Your task to perform on an android device: Go to notification settings Image 0: 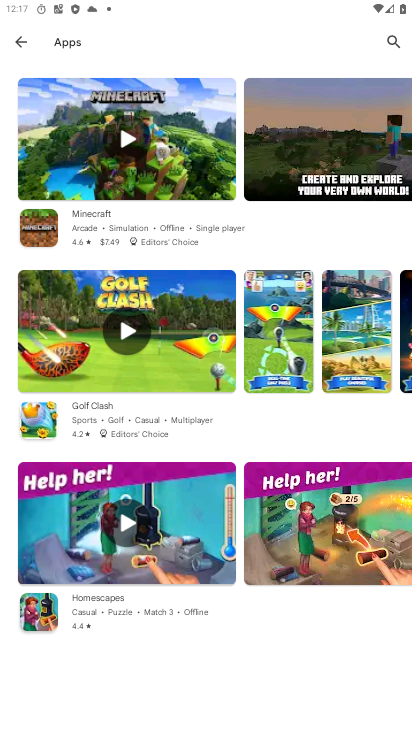
Step 0: press home button
Your task to perform on an android device: Go to notification settings Image 1: 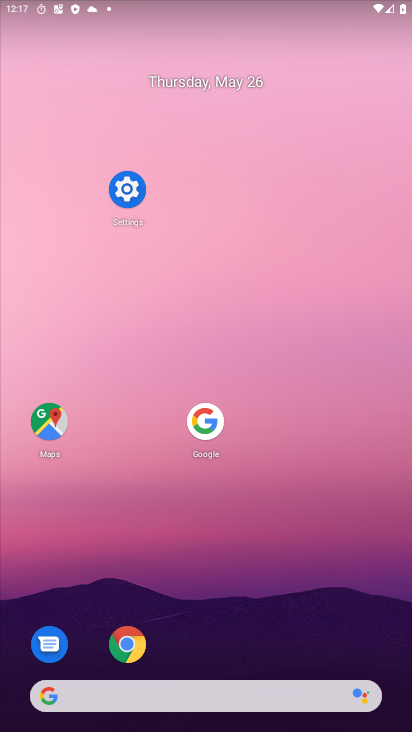
Step 1: drag from (216, 580) to (232, 66)
Your task to perform on an android device: Go to notification settings Image 2: 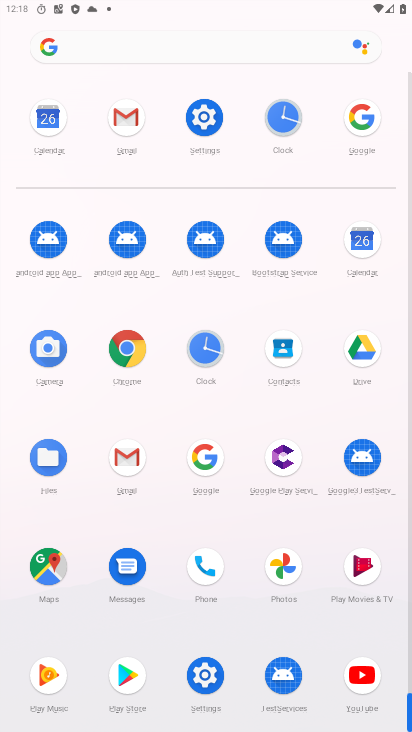
Step 2: click (207, 116)
Your task to perform on an android device: Go to notification settings Image 3: 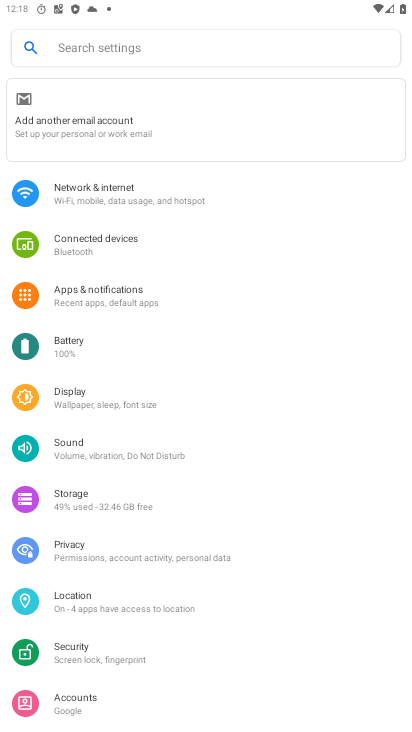
Step 3: click (95, 303)
Your task to perform on an android device: Go to notification settings Image 4: 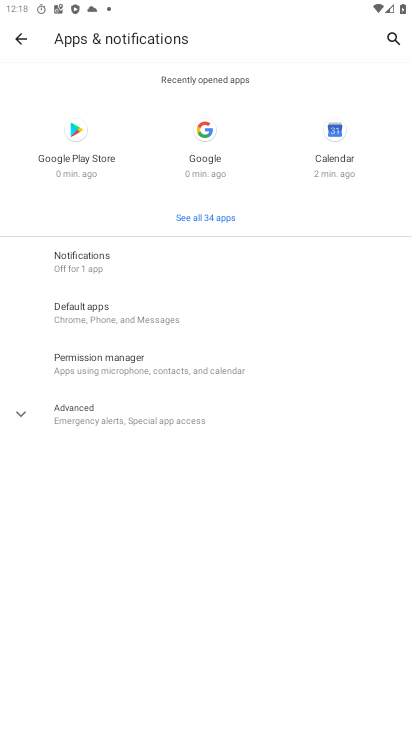
Step 4: click (108, 274)
Your task to perform on an android device: Go to notification settings Image 5: 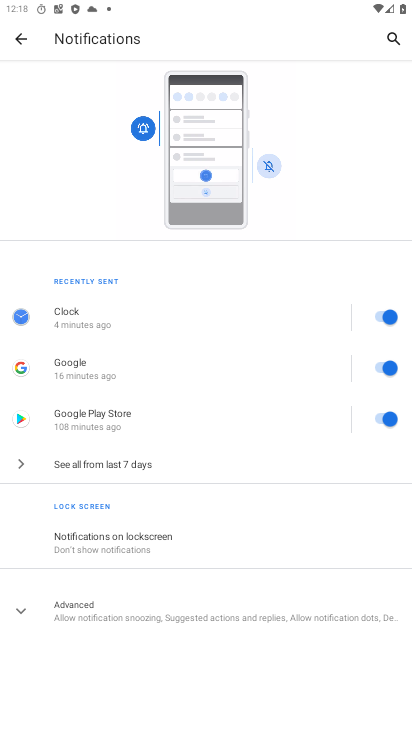
Step 5: task complete